Your task to perform on an android device: Add usb-b to the cart on amazon, then select checkout. Image 0: 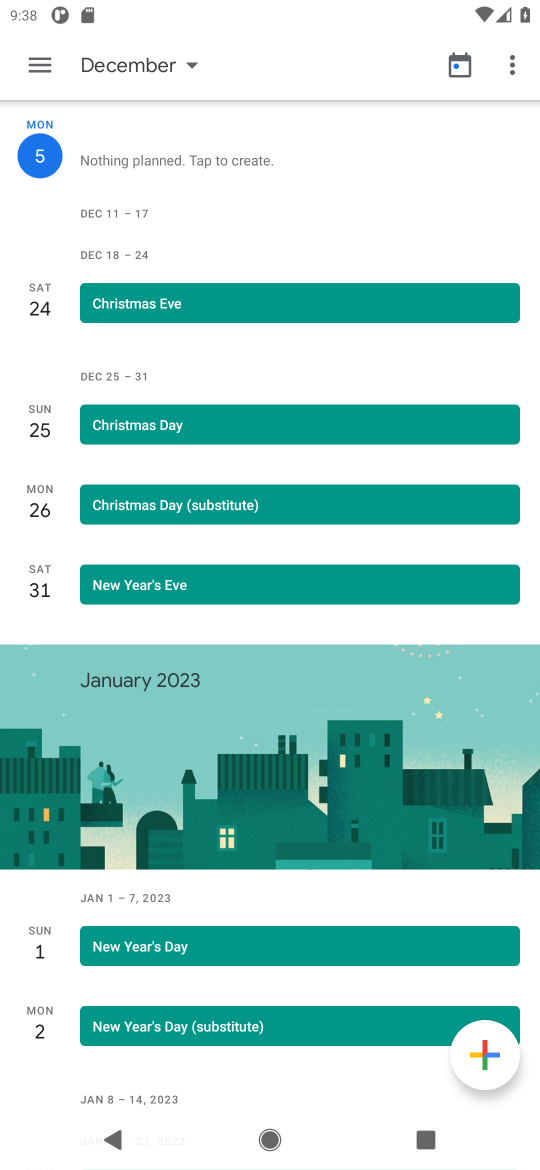
Step 0: press home button
Your task to perform on an android device: Add usb-b to the cart on amazon, then select checkout. Image 1: 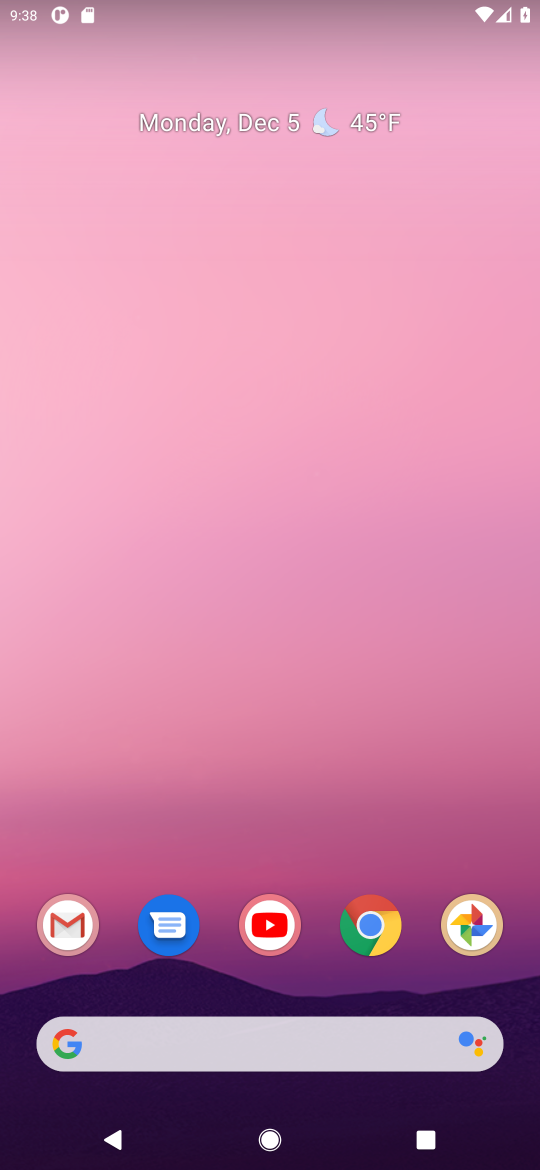
Step 1: click (376, 926)
Your task to perform on an android device: Add usb-b to the cart on amazon, then select checkout. Image 2: 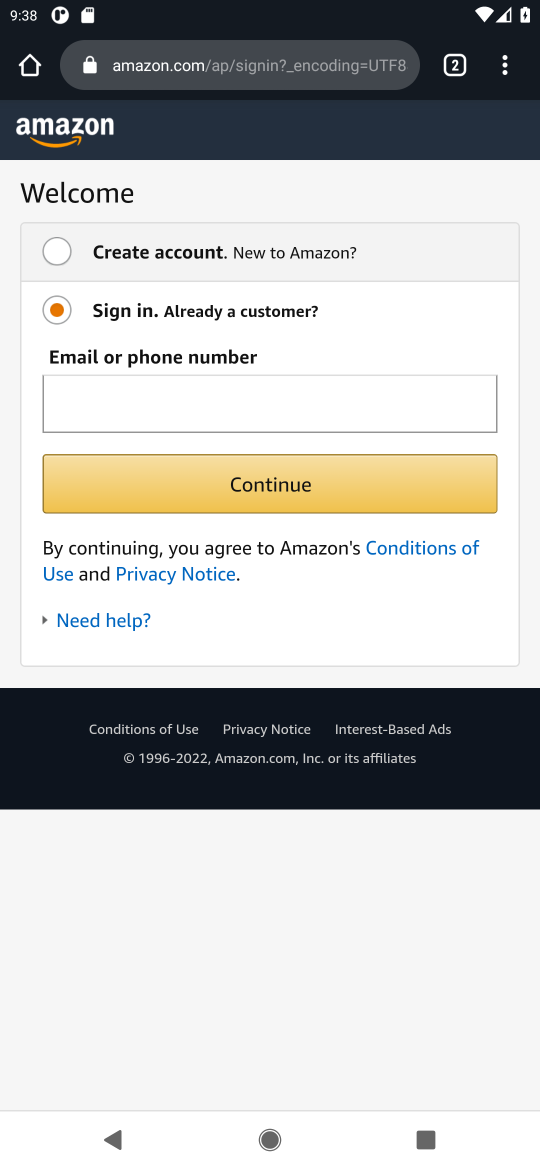
Step 2: press back button
Your task to perform on an android device: Add usb-b to the cart on amazon, then select checkout. Image 3: 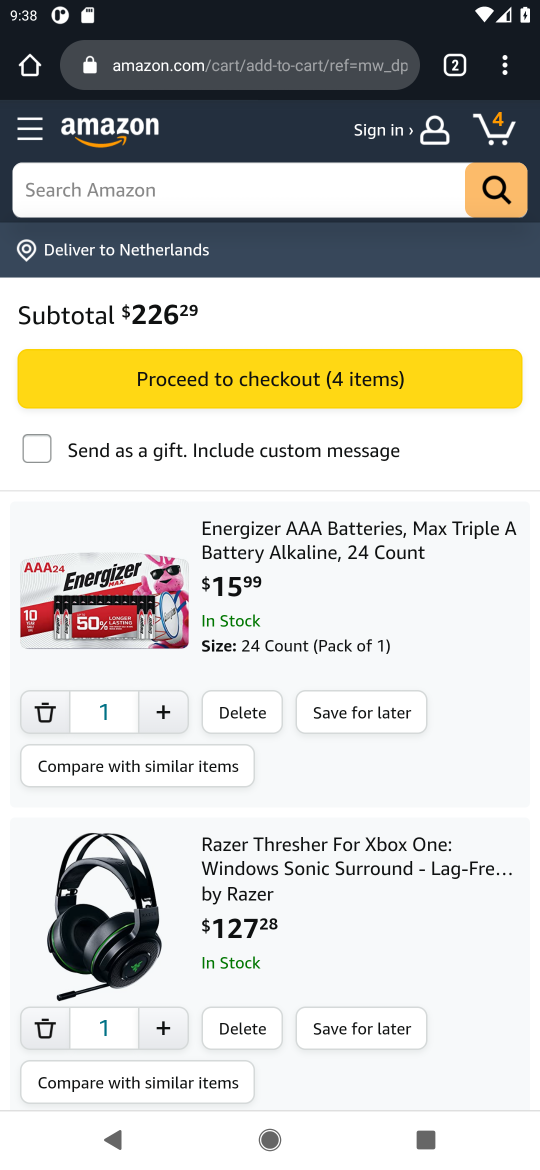
Step 3: click (77, 194)
Your task to perform on an android device: Add usb-b to the cart on amazon, then select checkout. Image 4: 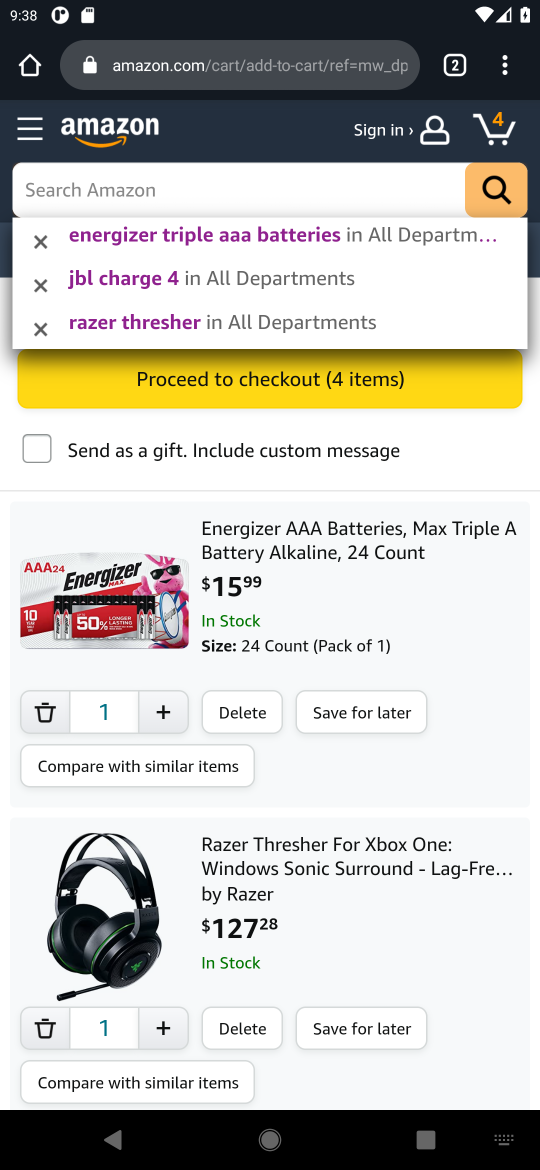
Step 4: type "usb-b"
Your task to perform on an android device: Add usb-b to the cart on amazon, then select checkout. Image 5: 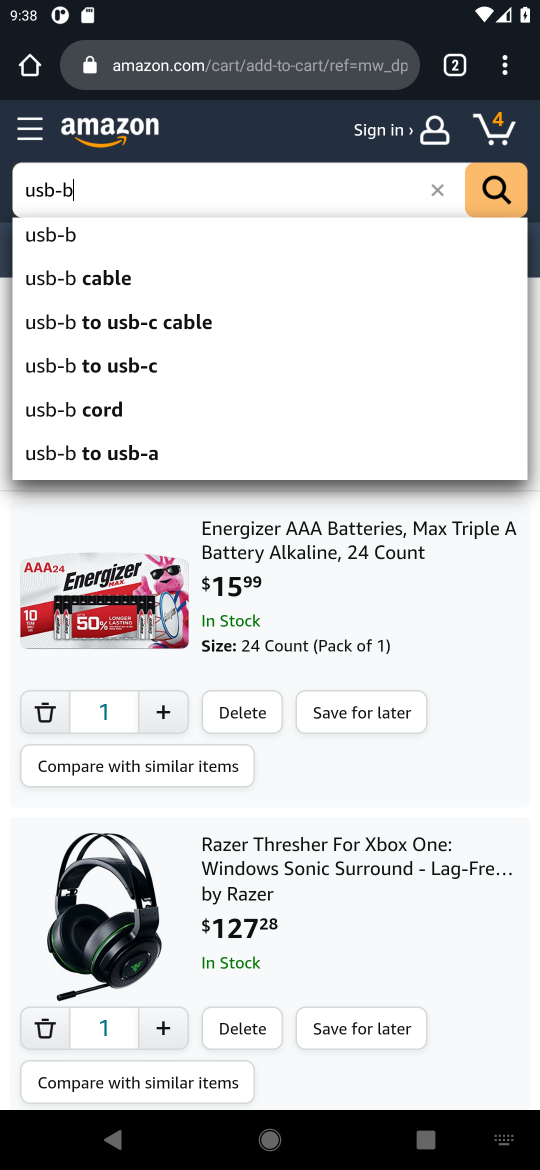
Step 5: click (54, 243)
Your task to perform on an android device: Add usb-b to the cart on amazon, then select checkout. Image 6: 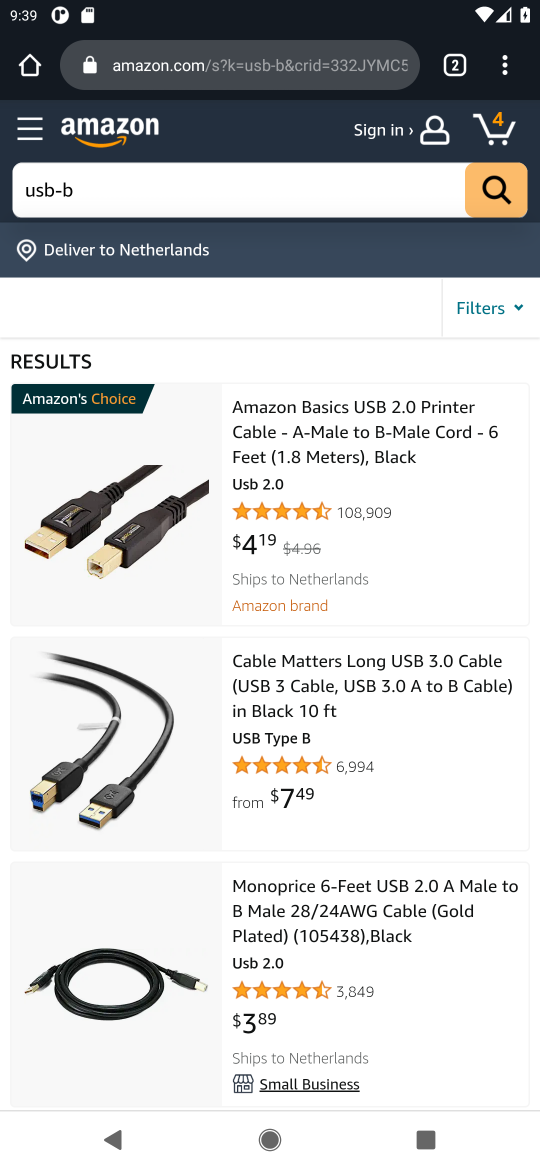
Step 6: drag from (300, 860) to (336, 677)
Your task to perform on an android device: Add usb-b to the cart on amazon, then select checkout. Image 7: 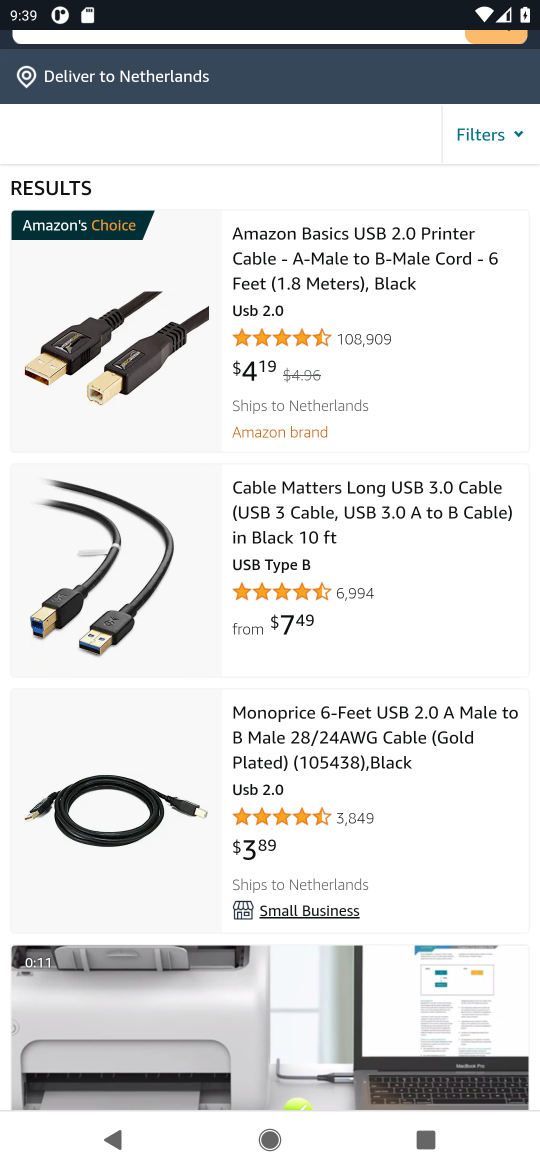
Step 7: click (272, 527)
Your task to perform on an android device: Add usb-b to the cart on amazon, then select checkout. Image 8: 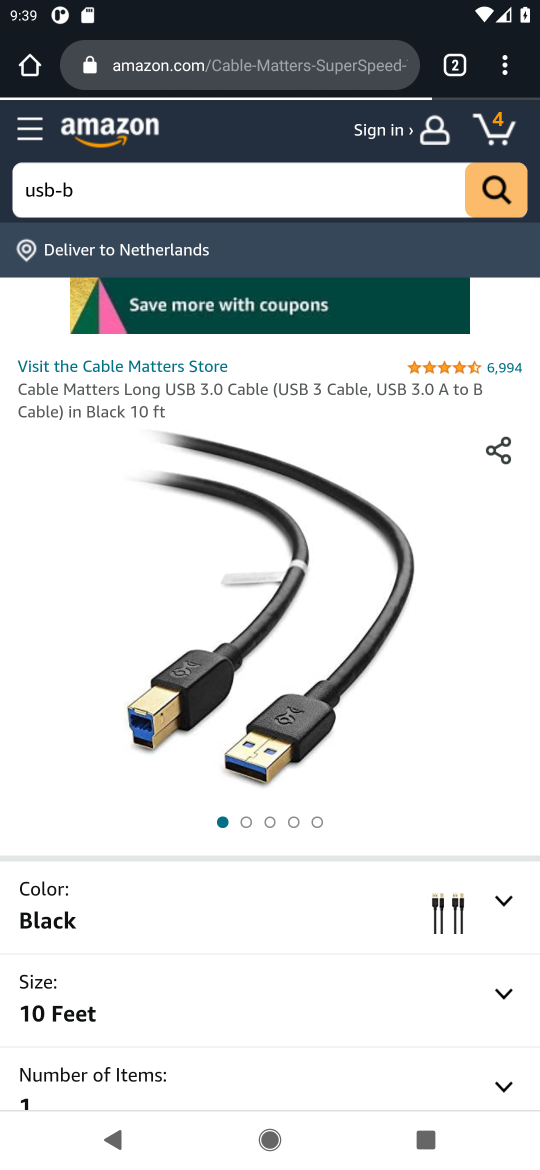
Step 8: drag from (304, 865) to (337, 423)
Your task to perform on an android device: Add usb-b to the cart on amazon, then select checkout. Image 9: 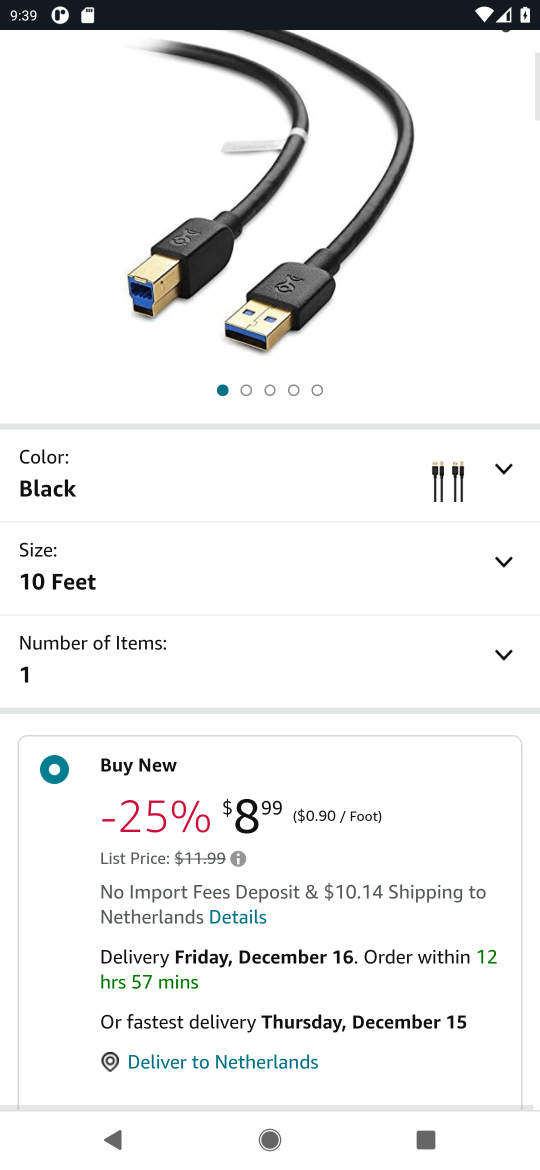
Step 9: drag from (322, 820) to (333, 369)
Your task to perform on an android device: Add usb-b to the cart on amazon, then select checkout. Image 10: 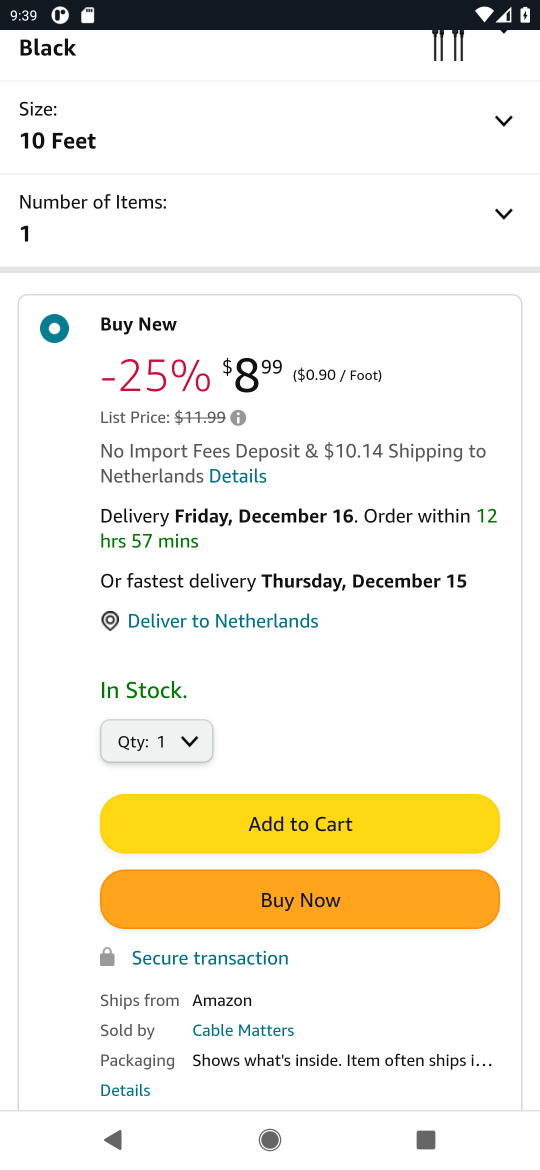
Step 10: click (271, 823)
Your task to perform on an android device: Add usb-b to the cart on amazon, then select checkout. Image 11: 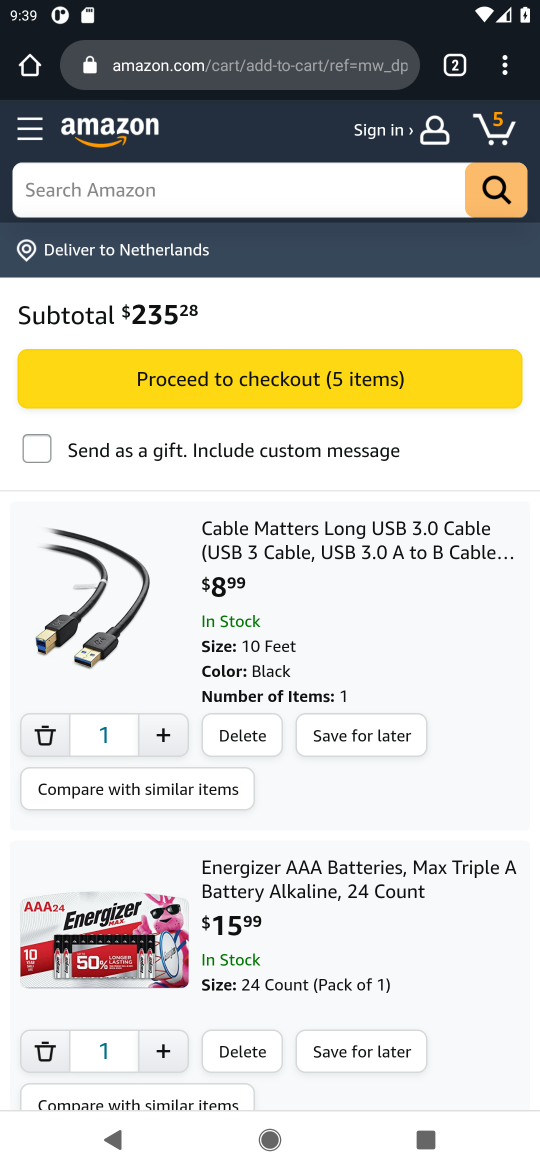
Step 11: click (248, 382)
Your task to perform on an android device: Add usb-b to the cart on amazon, then select checkout. Image 12: 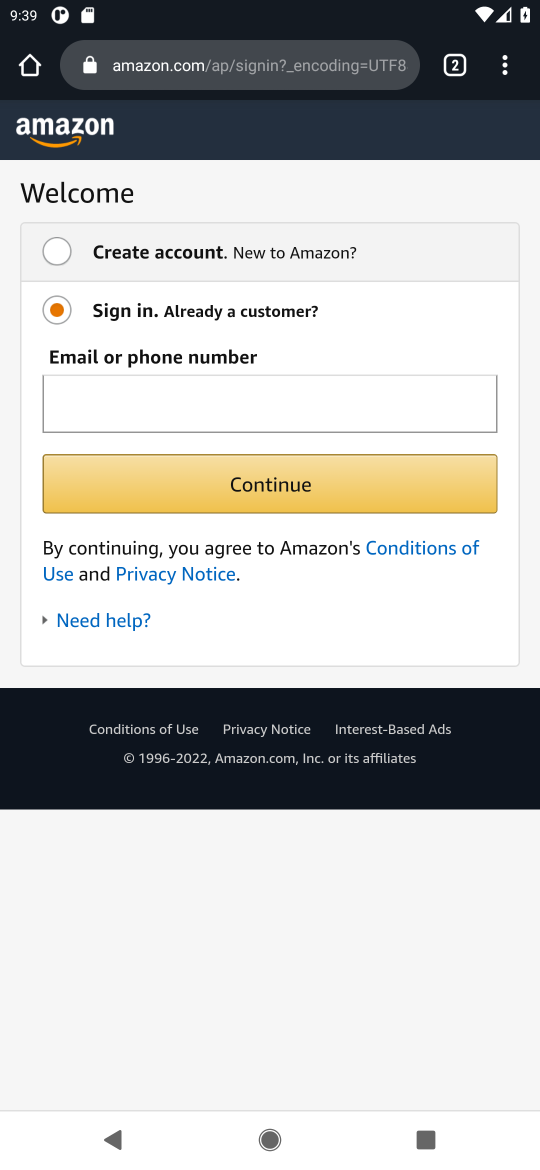
Step 12: task complete